Your task to perform on an android device: Go to battery settings Image 0: 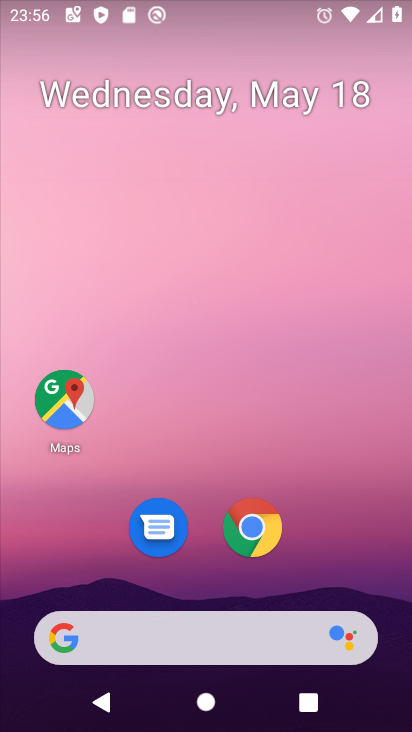
Step 0: drag from (340, 564) to (311, 88)
Your task to perform on an android device: Go to battery settings Image 1: 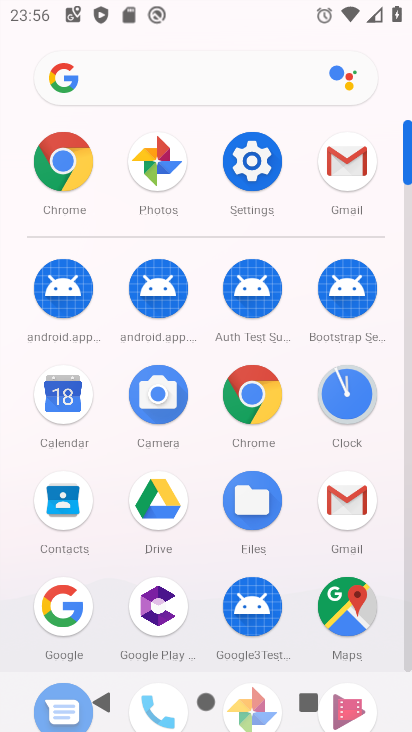
Step 1: click (236, 165)
Your task to perform on an android device: Go to battery settings Image 2: 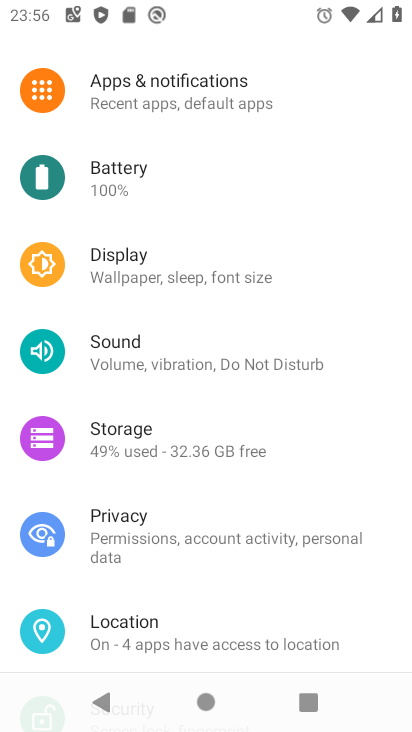
Step 2: click (216, 195)
Your task to perform on an android device: Go to battery settings Image 3: 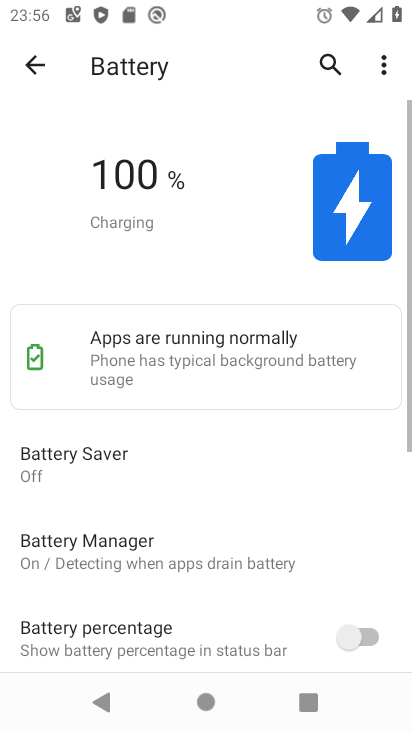
Step 3: task complete